Your task to perform on an android device: delete the emails in spam in the gmail app Image 0: 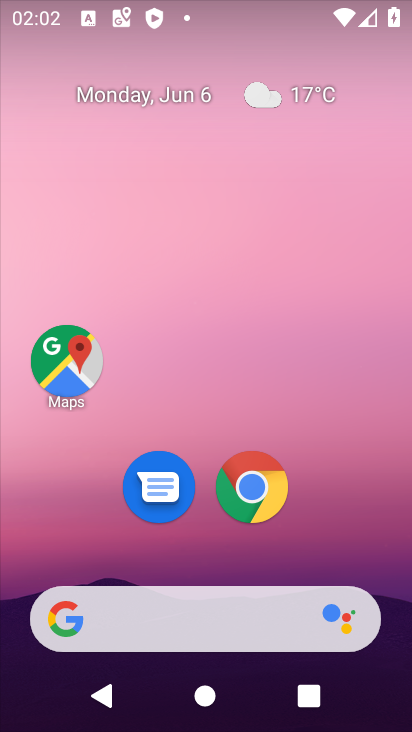
Step 0: drag from (401, 628) to (337, 67)
Your task to perform on an android device: delete the emails in spam in the gmail app Image 1: 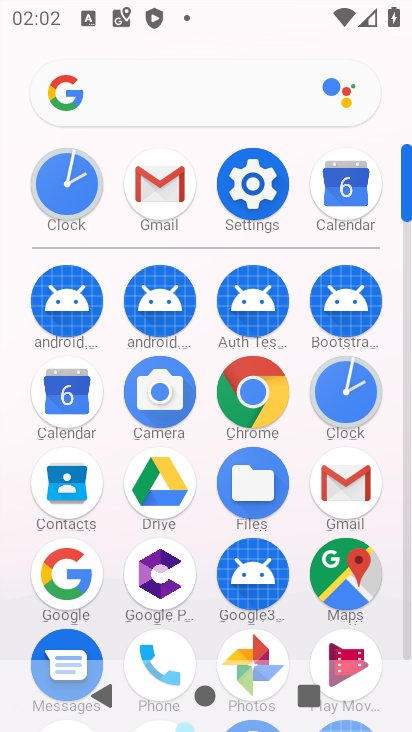
Step 1: click (405, 631)
Your task to perform on an android device: delete the emails in spam in the gmail app Image 2: 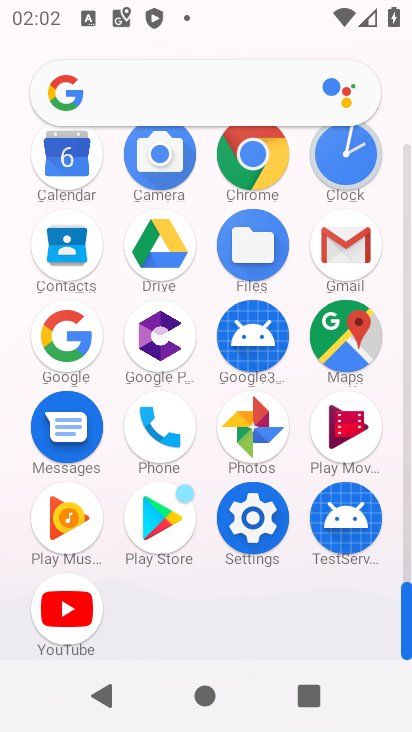
Step 2: click (344, 243)
Your task to perform on an android device: delete the emails in spam in the gmail app Image 3: 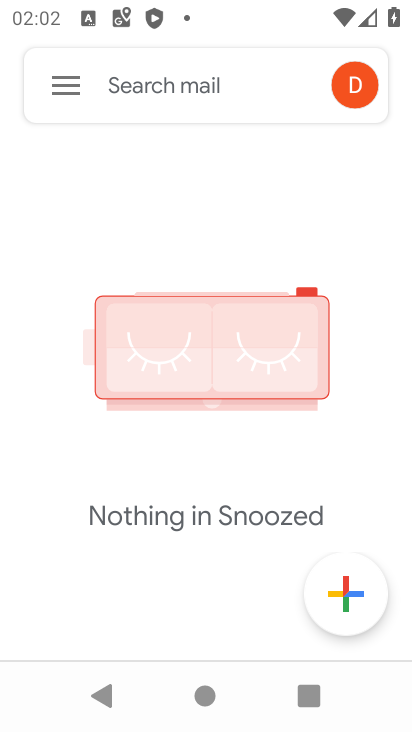
Step 3: click (70, 89)
Your task to perform on an android device: delete the emails in spam in the gmail app Image 4: 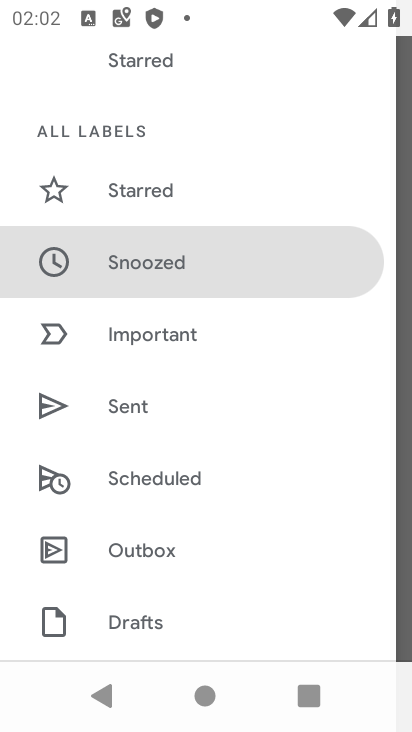
Step 4: drag from (236, 578) to (223, 228)
Your task to perform on an android device: delete the emails in spam in the gmail app Image 5: 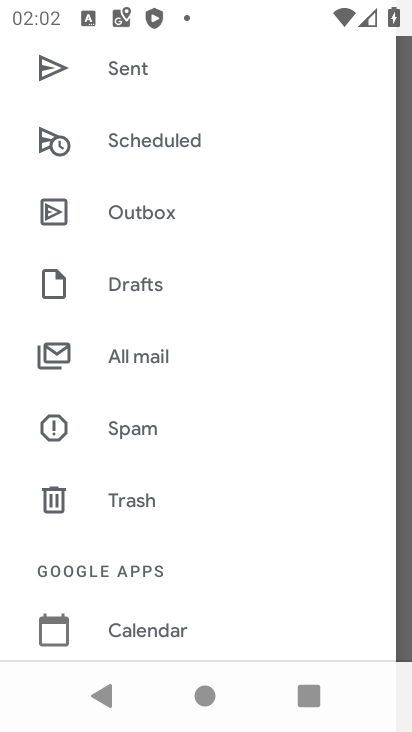
Step 5: click (134, 422)
Your task to perform on an android device: delete the emails in spam in the gmail app Image 6: 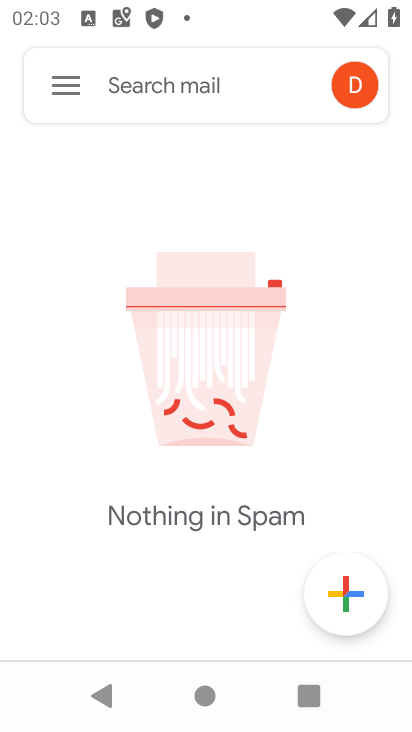
Step 6: task complete